Your task to perform on an android device: What's on my calendar today? Image 0: 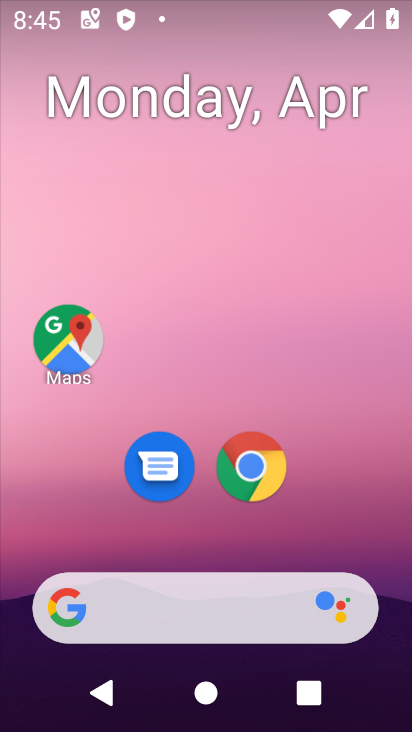
Step 0: drag from (178, 517) to (197, 26)
Your task to perform on an android device: What's on my calendar today? Image 1: 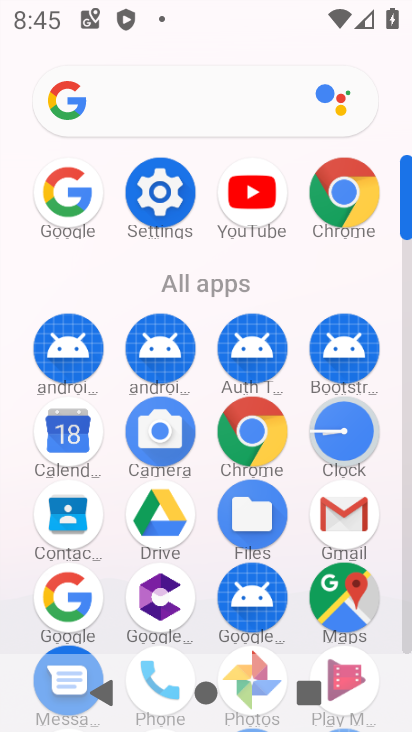
Step 1: drag from (116, 471) to (136, 355)
Your task to perform on an android device: What's on my calendar today? Image 2: 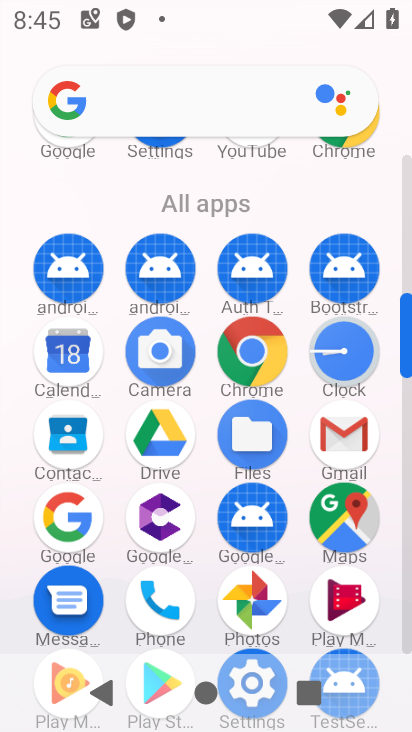
Step 2: click (76, 365)
Your task to perform on an android device: What's on my calendar today? Image 3: 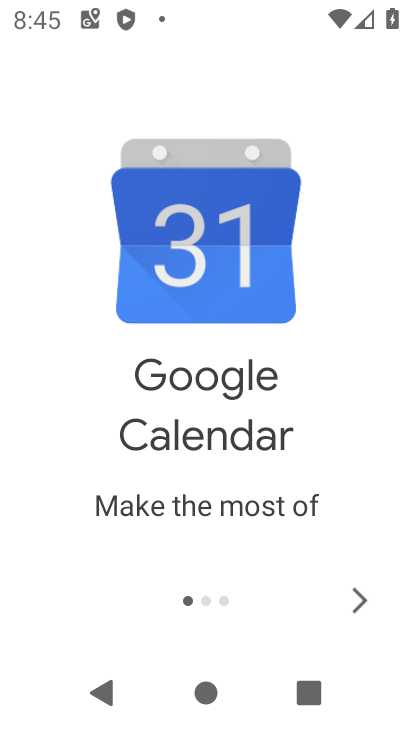
Step 3: click (361, 606)
Your task to perform on an android device: What's on my calendar today? Image 4: 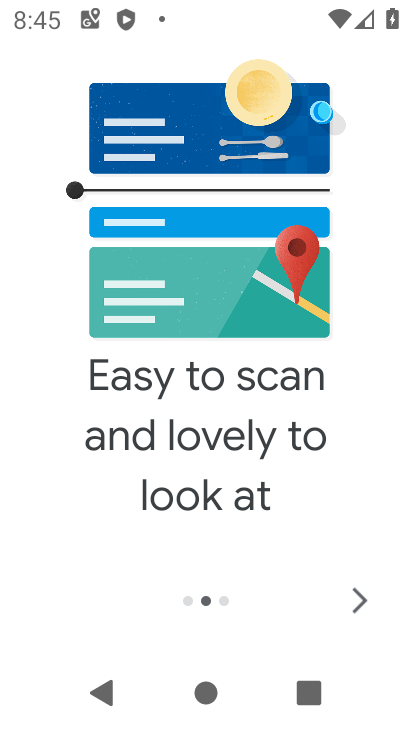
Step 4: click (361, 606)
Your task to perform on an android device: What's on my calendar today? Image 5: 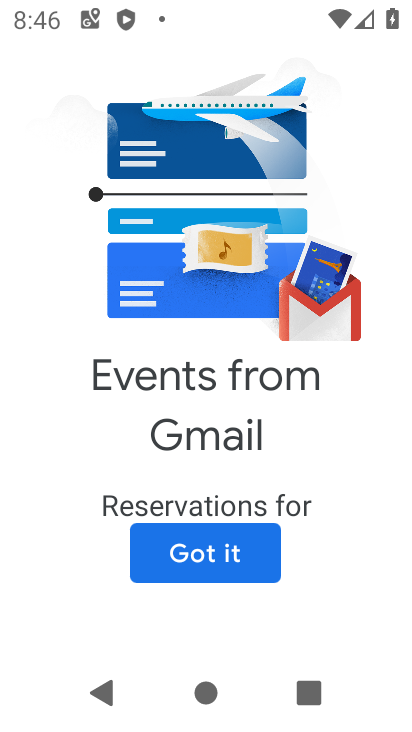
Step 5: click (237, 568)
Your task to perform on an android device: What's on my calendar today? Image 6: 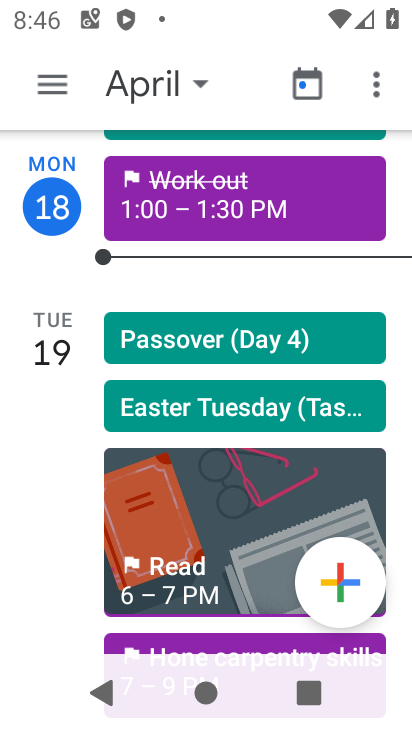
Step 6: click (191, 83)
Your task to perform on an android device: What's on my calendar today? Image 7: 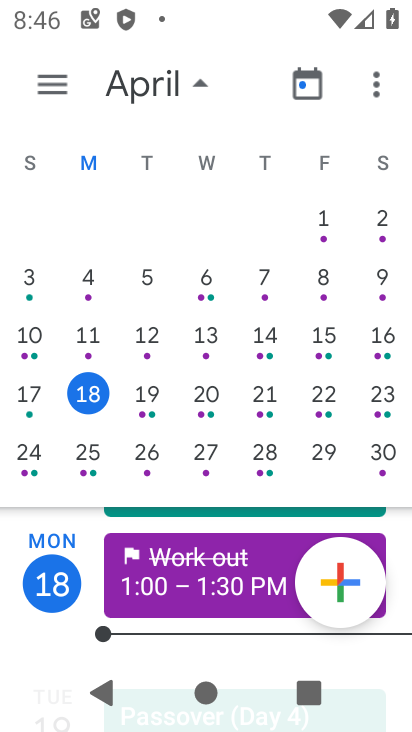
Step 7: click (93, 393)
Your task to perform on an android device: What's on my calendar today? Image 8: 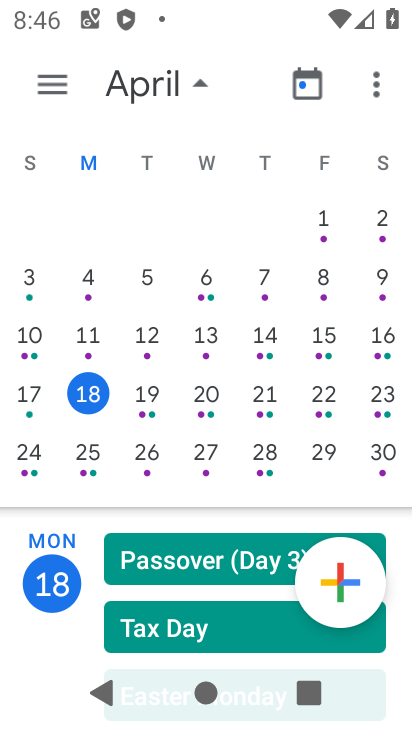
Step 8: task complete